Your task to perform on an android device: turn off translation in the chrome app Image 0: 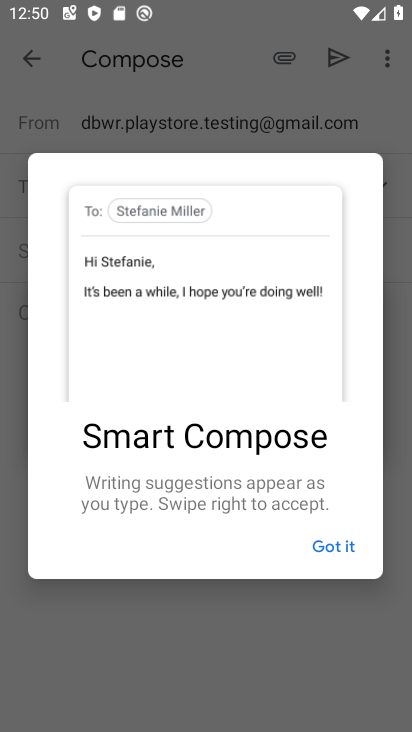
Step 0: press home button
Your task to perform on an android device: turn off translation in the chrome app Image 1: 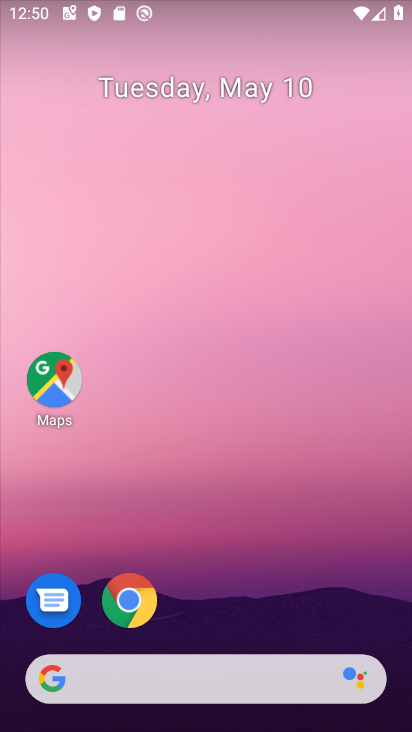
Step 1: click (144, 592)
Your task to perform on an android device: turn off translation in the chrome app Image 2: 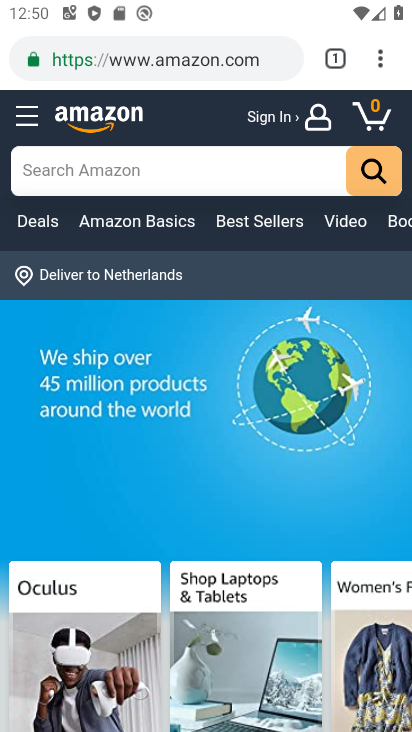
Step 2: click (371, 53)
Your task to perform on an android device: turn off translation in the chrome app Image 3: 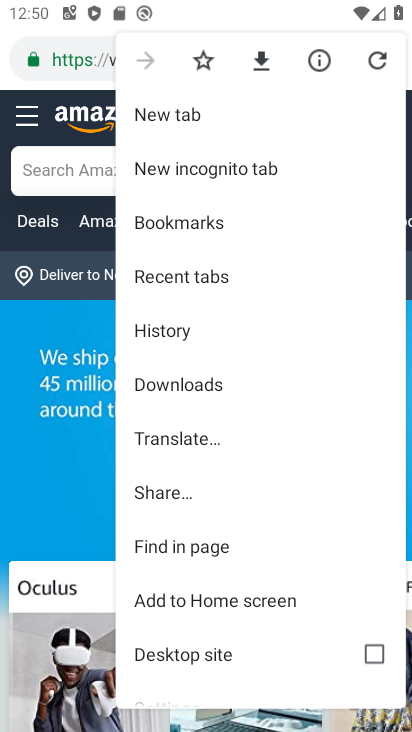
Step 3: drag from (191, 584) to (141, 288)
Your task to perform on an android device: turn off translation in the chrome app Image 4: 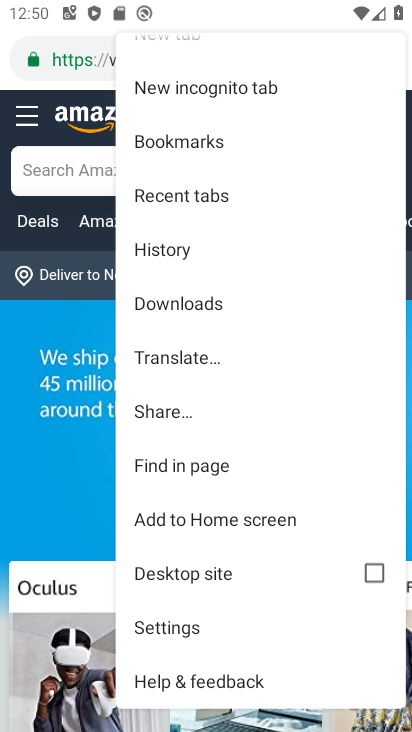
Step 4: click (192, 632)
Your task to perform on an android device: turn off translation in the chrome app Image 5: 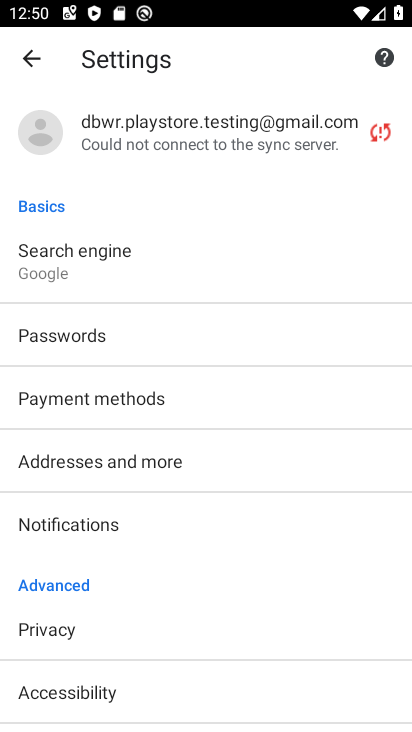
Step 5: drag from (90, 614) to (72, 288)
Your task to perform on an android device: turn off translation in the chrome app Image 6: 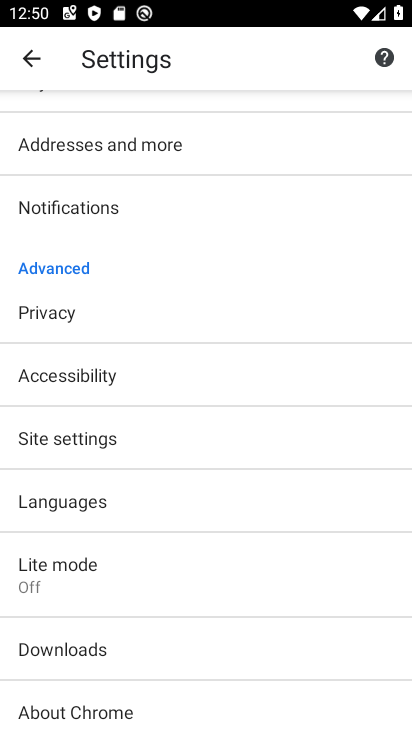
Step 6: click (110, 517)
Your task to perform on an android device: turn off translation in the chrome app Image 7: 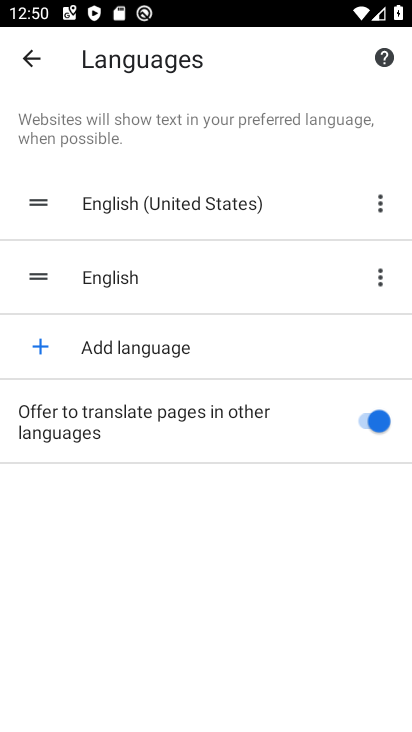
Step 7: click (371, 420)
Your task to perform on an android device: turn off translation in the chrome app Image 8: 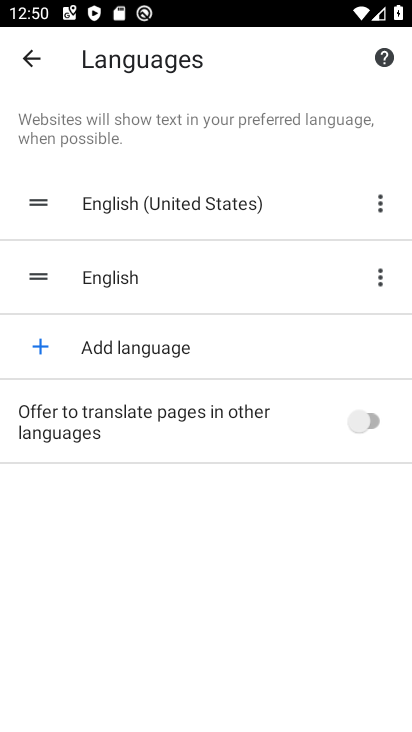
Step 8: task complete